Your task to perform on an android device: toggle wifi Image 0: 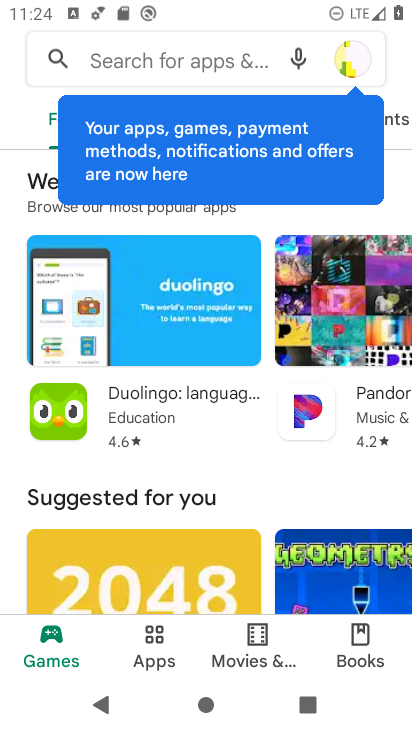
Step 0: press home button
Your task to perform on an android device: toggle wifi Image 1: 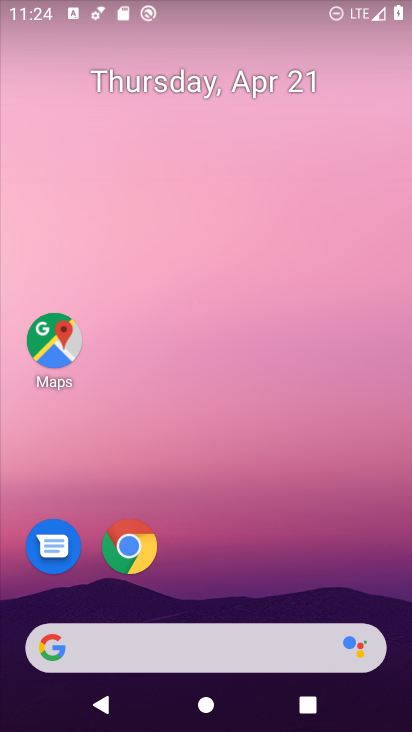
Step 1: drag from (287, 592) to (255, 327)
Your task to perform on an android device: toggle wifi Image 2: 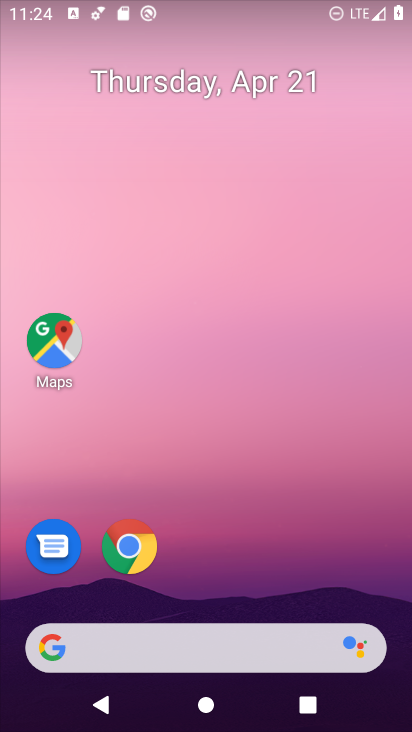
Step 2: drag from (336, 589) to (294, 144)
Your task to perform on an android device: toggle wifi Image 3: 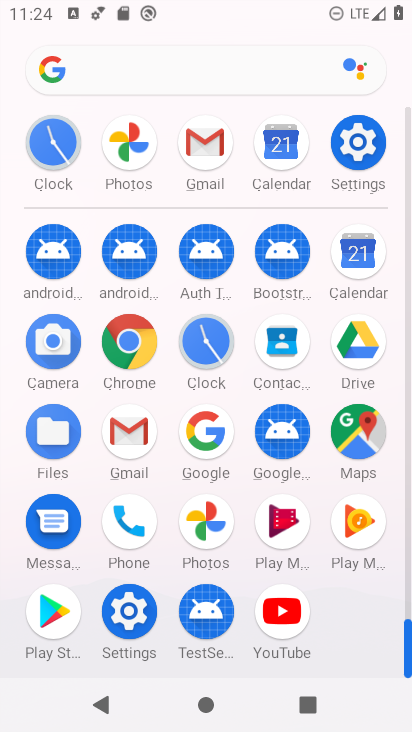
Step 3: click (127, 614)
Your task to perform on an android device: toggle wifi Image 4: 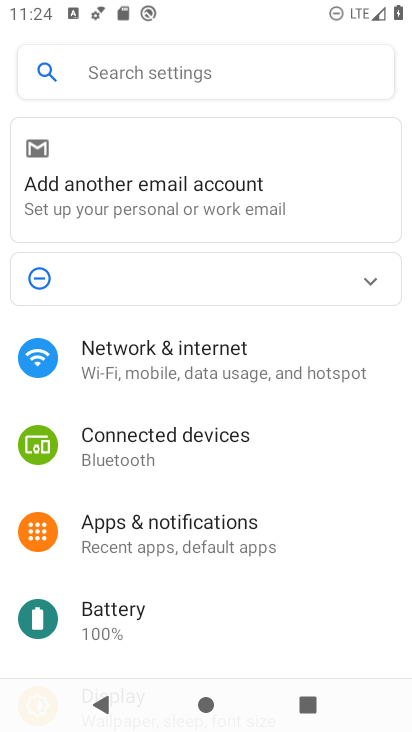
Step 4: click (154, 344)
Your task to perform on an android device: toggle wifi Image 5: 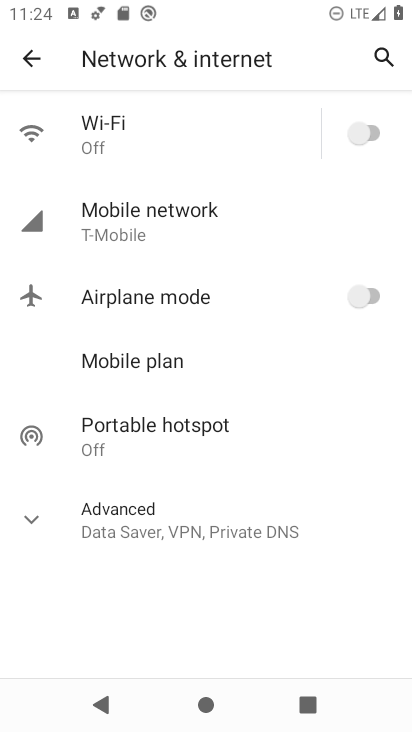
Step 5: click (362, 123)
Your task to perform on an android device: toggle wifi Image 6: 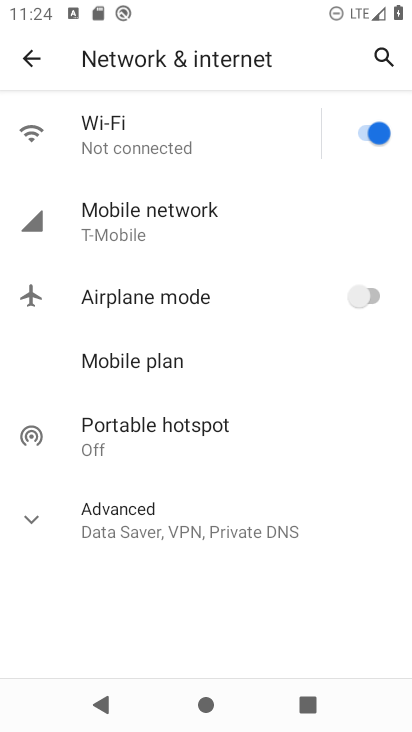
Step 6: task complete